Your task to perform on an android device: see creations saved in the google photos Image 0: 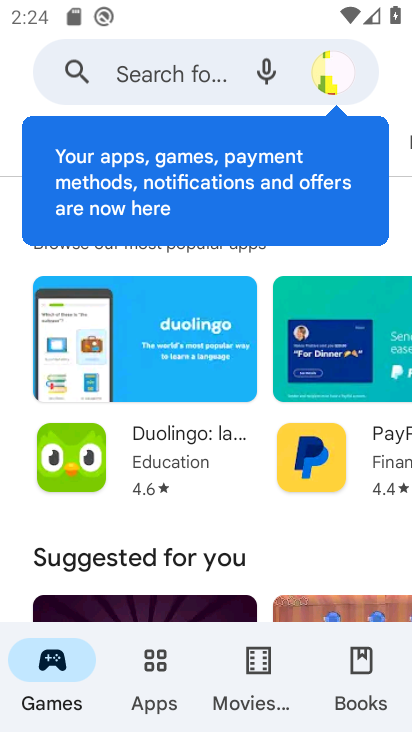
Step 0: press home button
Your task to perform on an android device: see creations saved in the google photos Image 1: 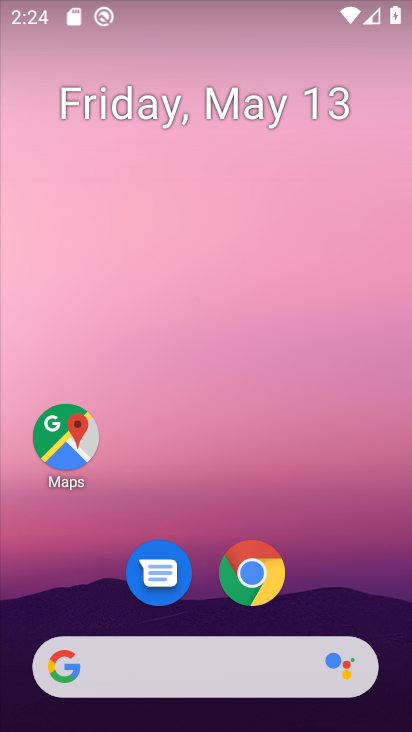
Step 1: drag from (337, 616) to (203, 11)
Your task to perform on an android device: see creations saved in the google photos Image 2: 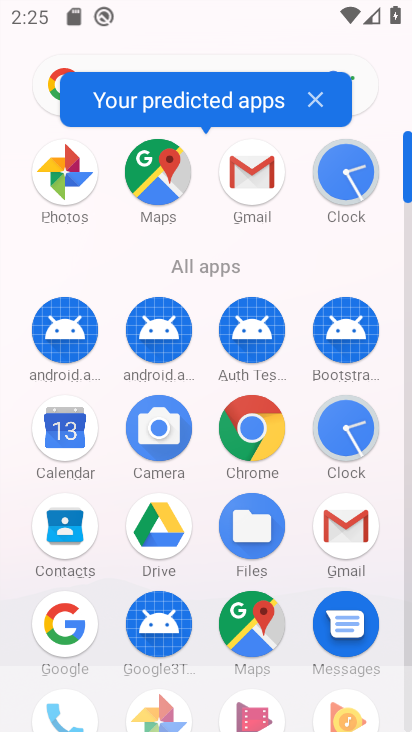
Step 2: drag from (194, 638) to (161, 150)
Your task to perform on an android device: see creations saved in the google photos Image 3: 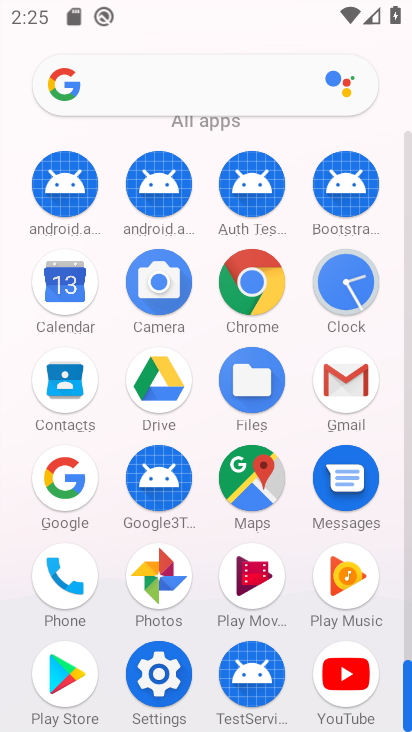
Step 3: click (161, 578)
Your task to perform on an android device: see creations saved in the google photos Image 4: 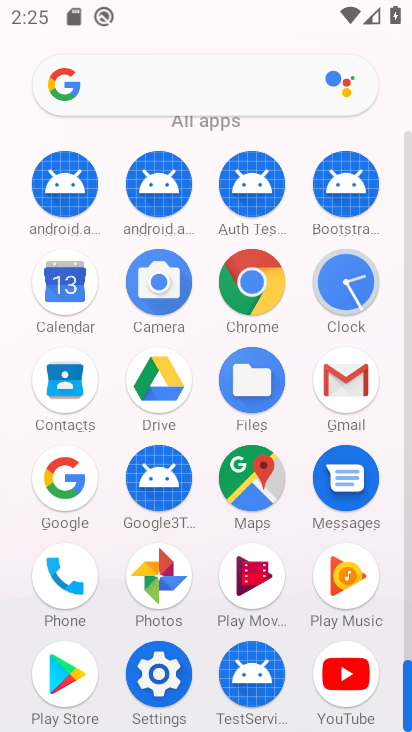
Step 4: click (161, 577)
Your task to perform on an android device: see creations saved in the google photos Image 5: 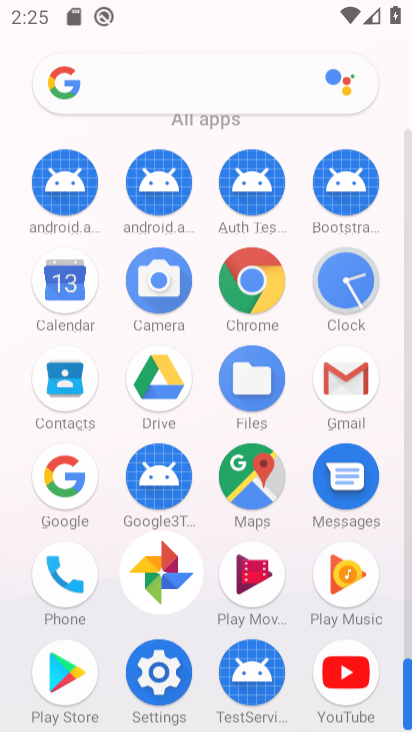
Step 5: click (166, 576)
Your task to perform on an android device: see creations saved in the google photos Image 6: 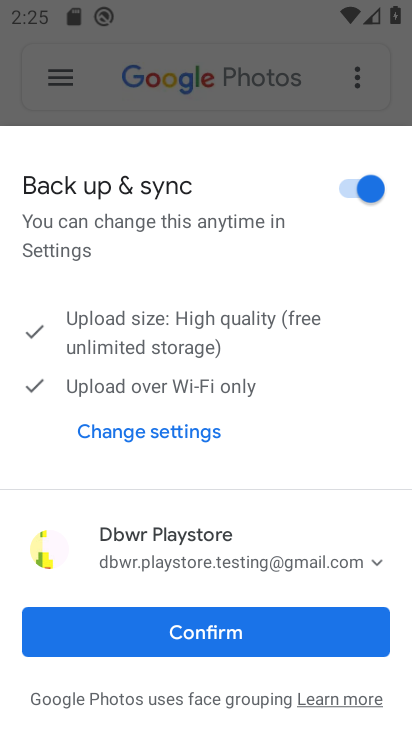
Step 6: click (224, 629)
Your task to perform on an android device: see creations saved in the google photos Image 7: 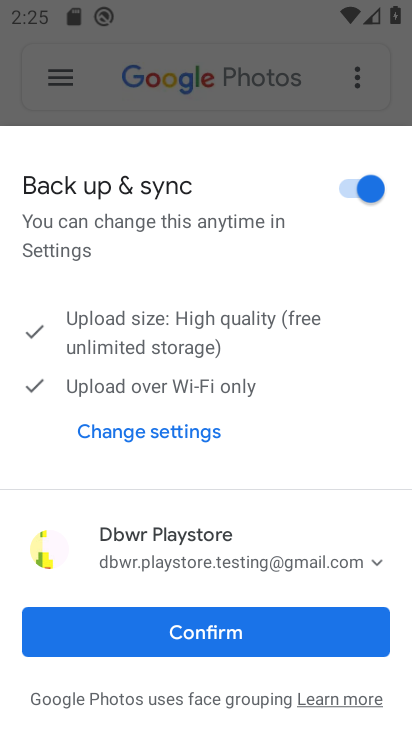
Step 7: click (225, 629)
Your task to perform on an android device: see creations saved in the google photos Image 8: 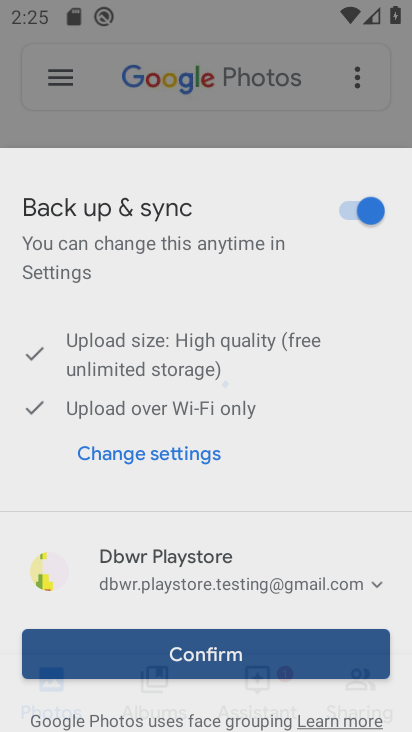
Step 8: click (226, 630)
Your task to perform on an android device: see creations saved in the google photos Image 9: 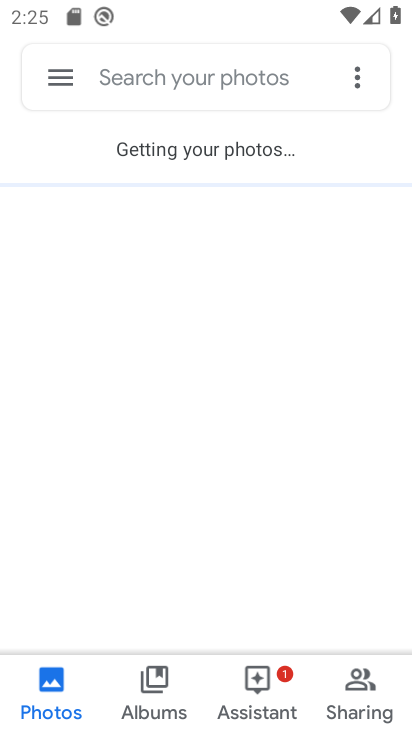
Step 9: task complete